Your task to perform on an android device: toggle wifi Image 0: 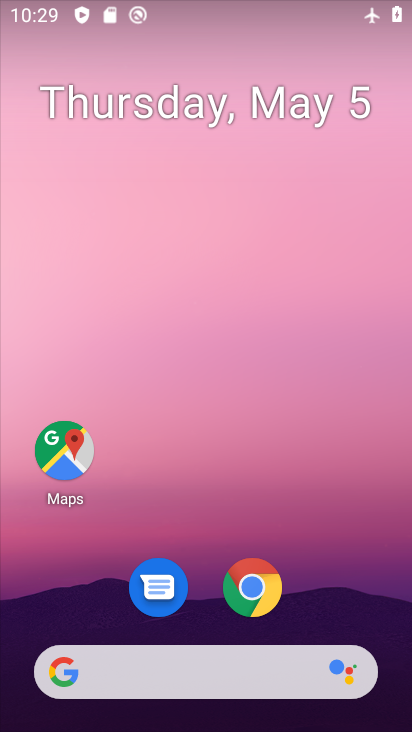
Step 0: drag from (387, 616) to (256, 0)
Your task to perform on an android device: toggle wifi Image 1: 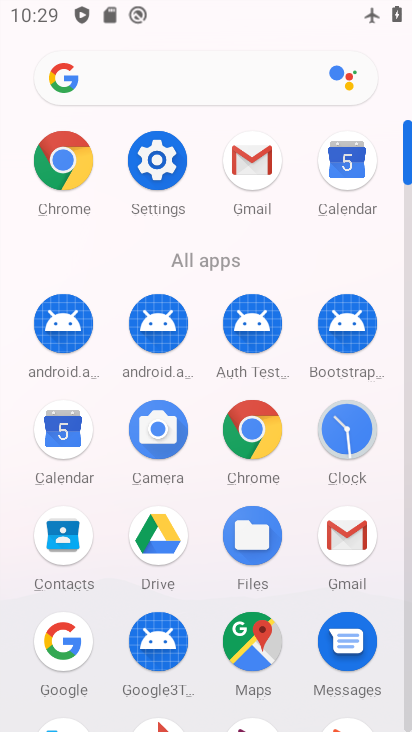
Step 1: click (153, 159)
Your task to perform on an android device: toggle wifi Image 2: 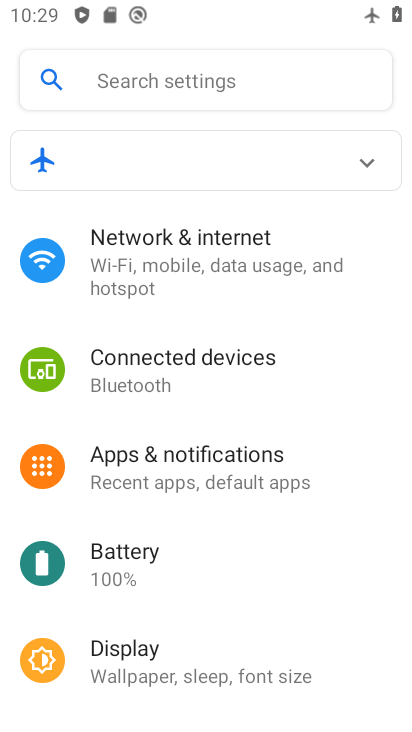
Step 2: click (289, 245)
Your task to perform on an android device: toggle wifi Image 3: 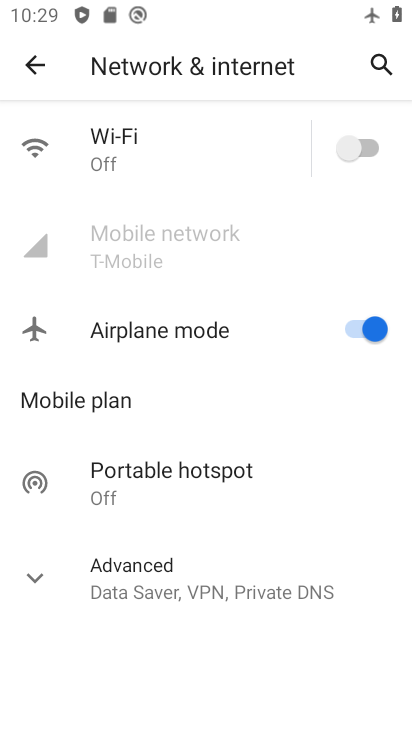
Step 3: click (349, 141)
Your task to perform on an android device: toggle wifi Image 4: 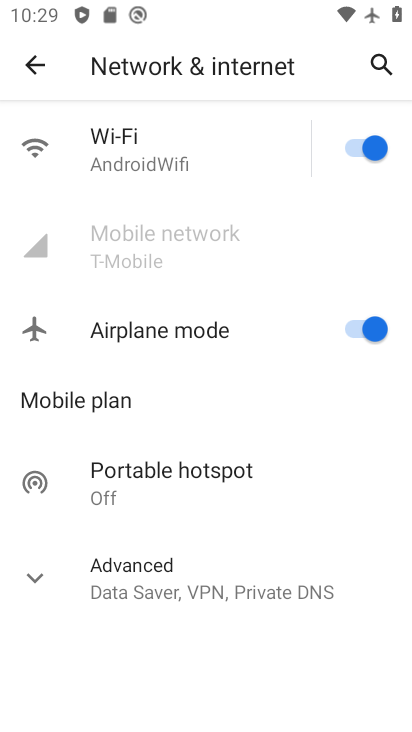
Step 4: task complete